Your task to perform on an android device: set the timer Image 0: 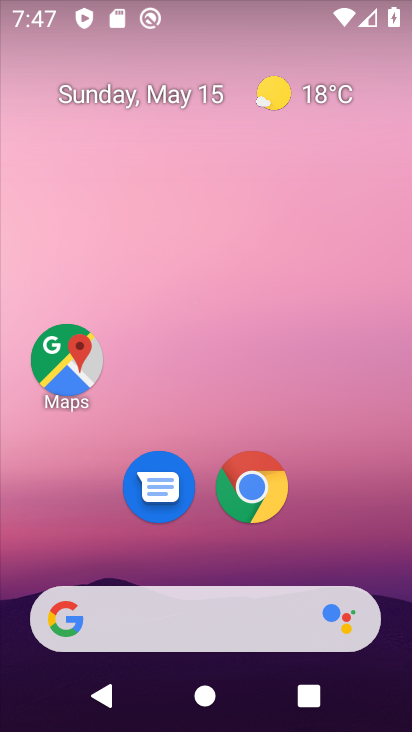
Step 0: click (380, 61)
Your task to perform on an android device: set the timer Image 1: 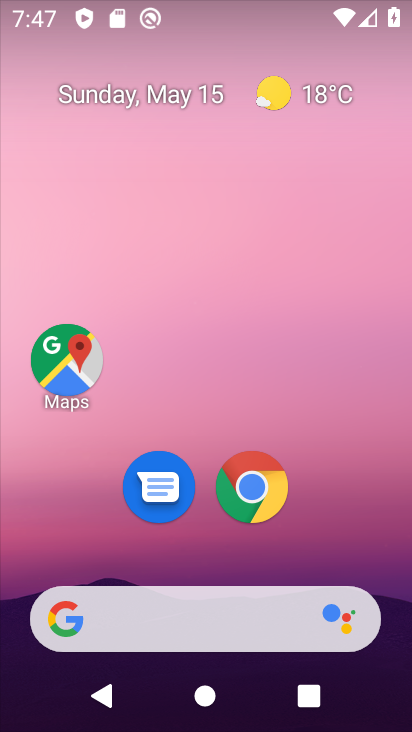
Step 1: drag from (196, 576) to (237, 124)
Your task to perform on an android device: set the timer Image 2: 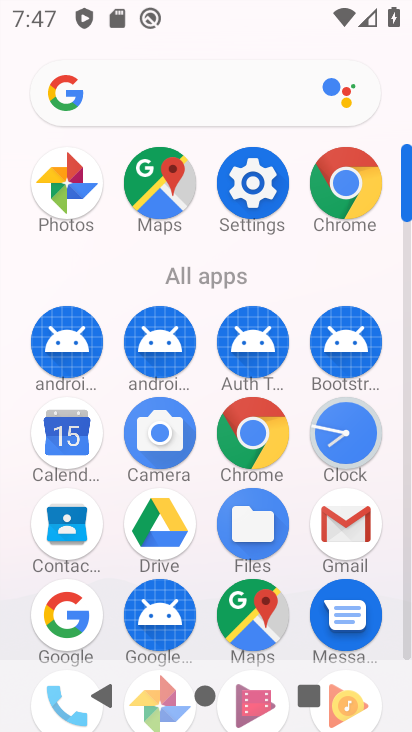
Step 2: click (349, 425)
Your task to perform on an android device: set the timer Image 3: 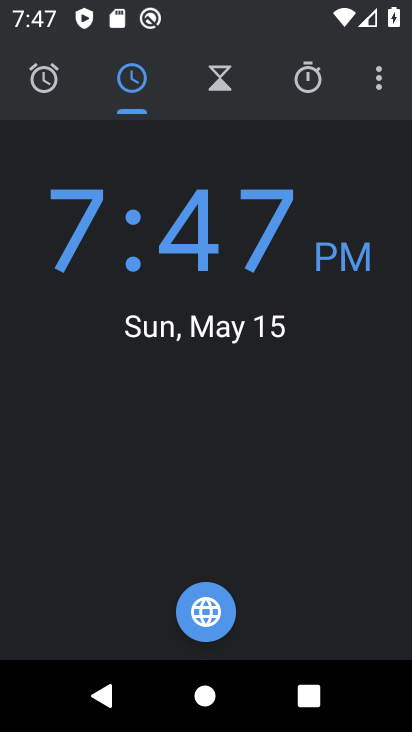
Step 3: click (220, 101)
Your task to perform on an android device: set the timer Image 4: 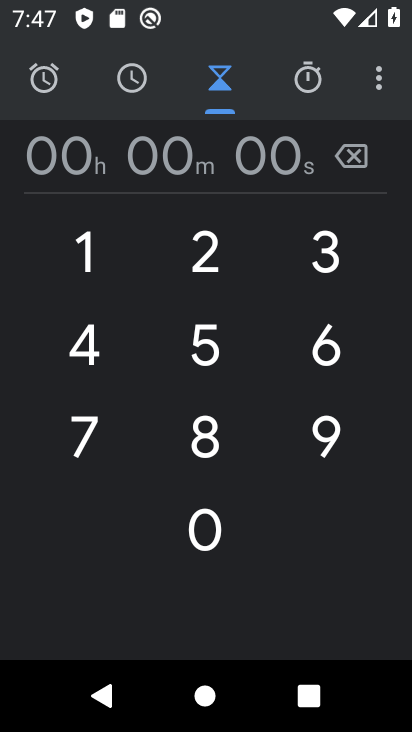
Step 4: click (192, 445)
Your task to perform on an android device: set the timer Image 5: 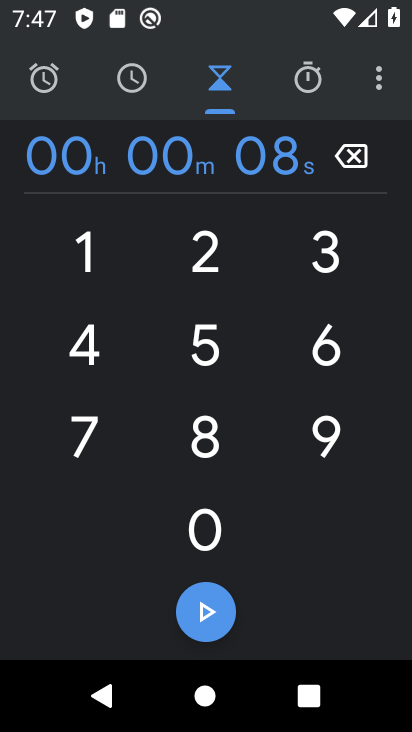
Step 5: click (339, 406)
Your task to perform on an android device: set the timer Image 6: 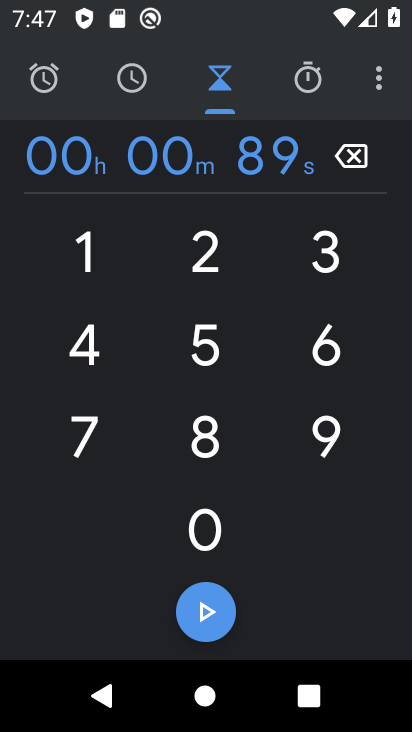
Step 6: click (219, 593)
Your task to perform on an android device: set the timer Image 7: 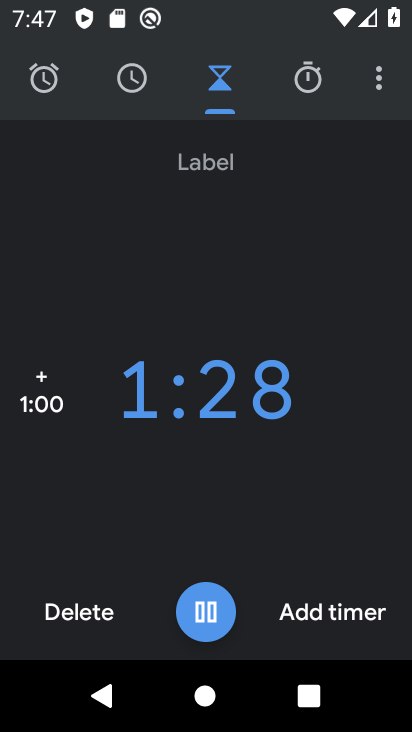
Step 7: task complete